Your task to perform on an android device: turn off priority inbox in the gmail app Image 0: 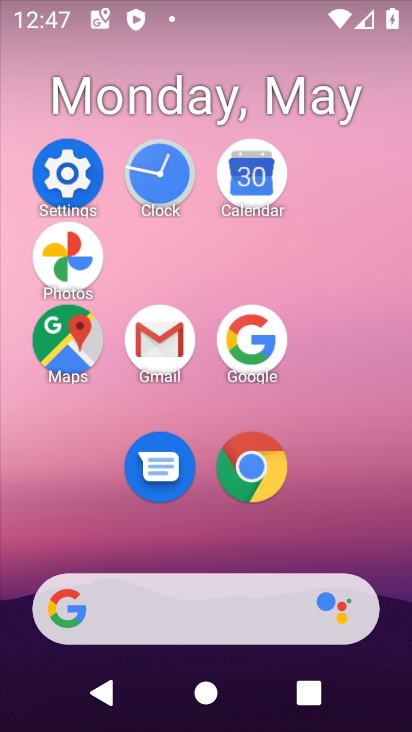
Step 0: click (171, 337)
Your task to perform on an android device: turn off priority inbox in the gmail app Image 1: 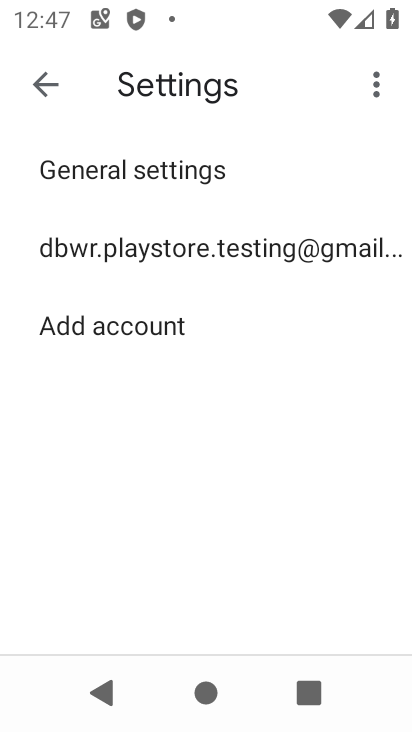
Step 1: click (117, 238)
Your task to perform on an android device: turn off priority inbox in the gmail app Image 2: 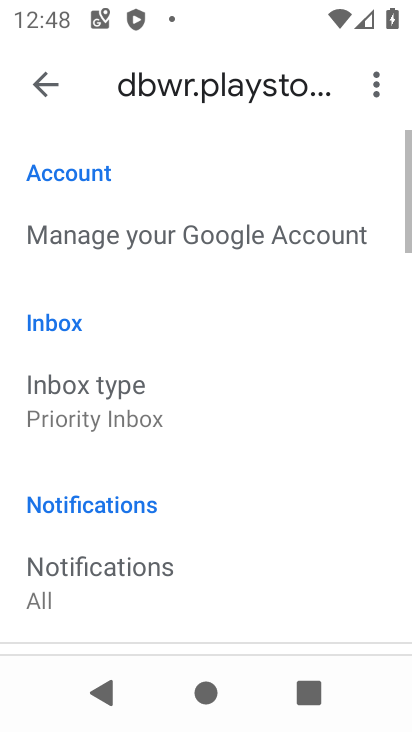
Step 2: click (133, 393)
Your task to perform on an android device: turn off priority inbox in the gmail app Image 3: 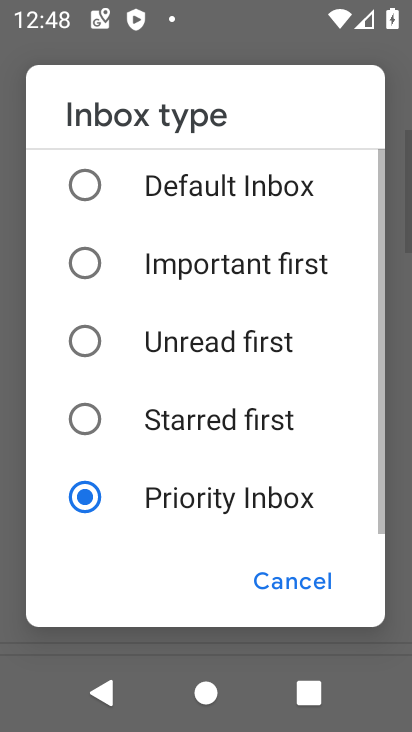
Step 3: click (146, 200)
Your task to perform on an android device: turn off priority inbox in the gmail app Image 4: 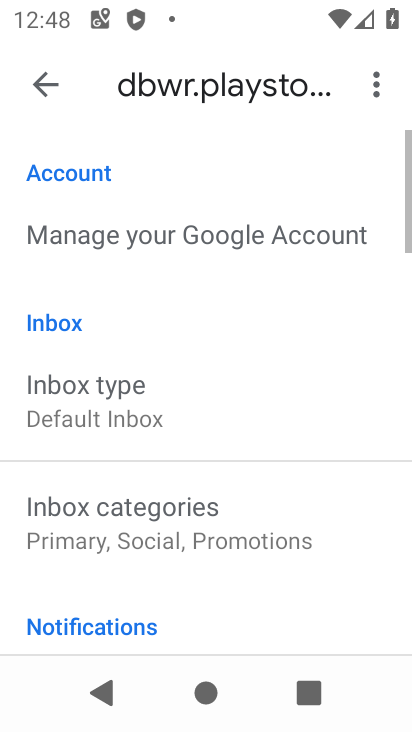
Step 4: task complete